Your task to perform on an android device: Add "dell xps" to the cart on target.com Image 0: 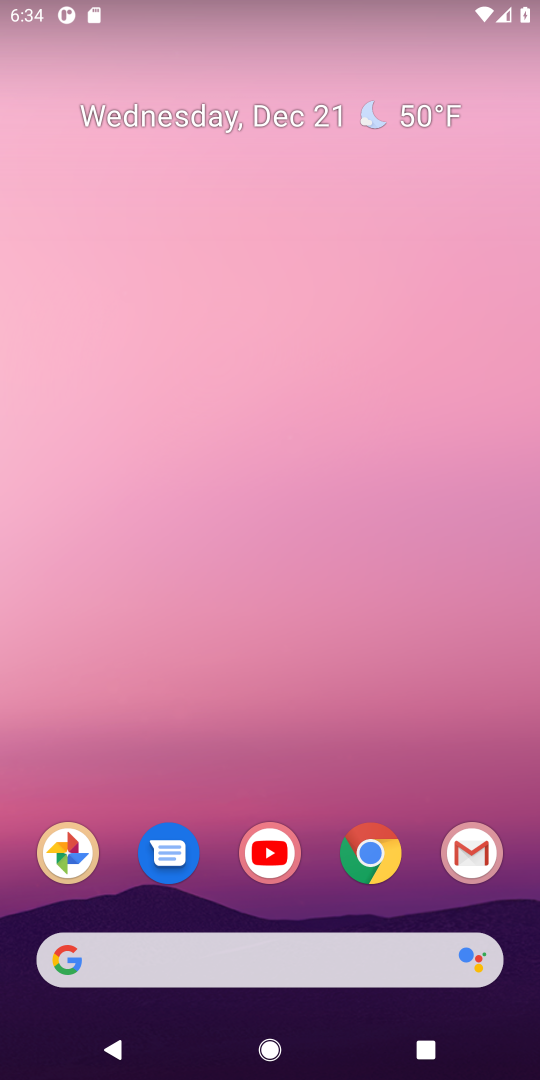
Step 0: click (381, 859)
Your task to perform on an android device: Add "dell xps" to the cart on target.com Image 1: 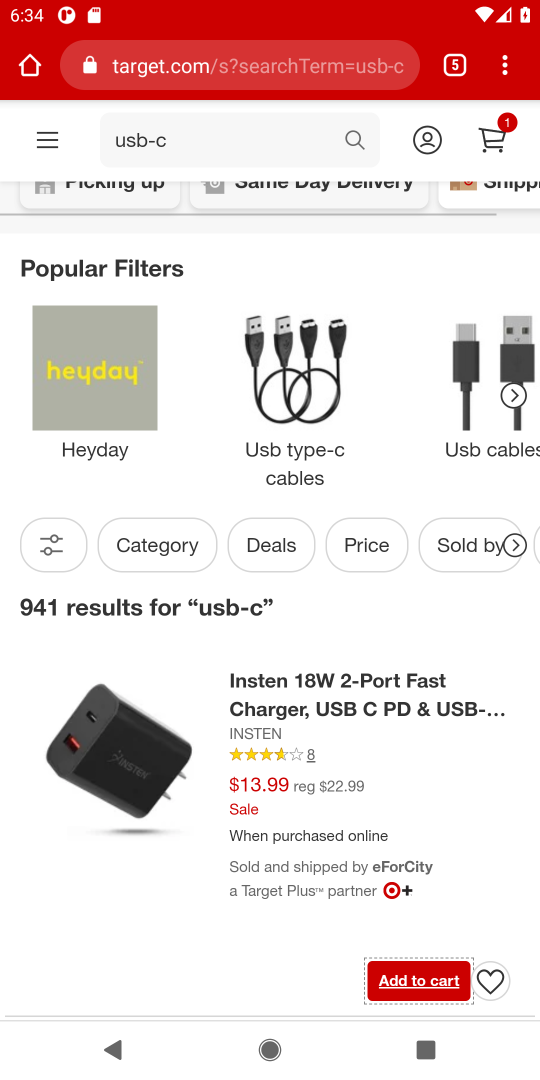
Step 1: click (164, 139)
Your task to perform on an android device: Add "dell xps" to the cart on target.com Image 2: 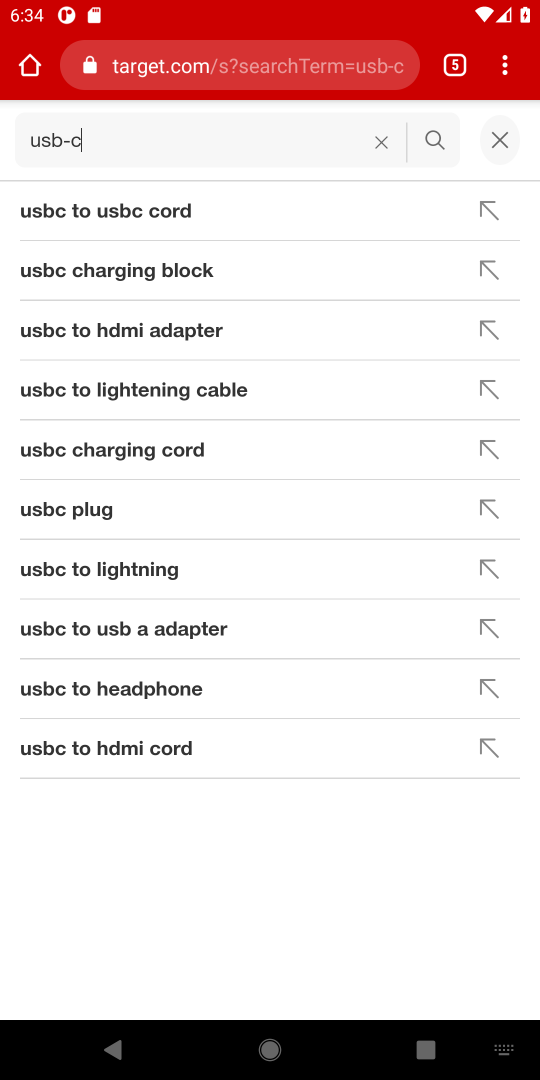
Step 2: click (386, 140)
Your task to perform on an android device: Add "dell xps" to the cart on target.com Image 3: 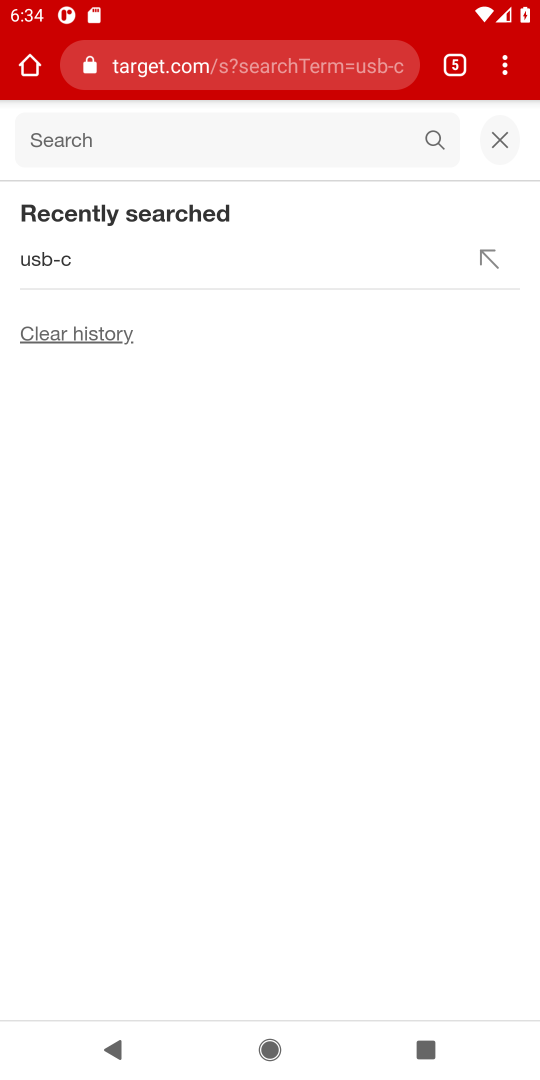
Step 3: type "dell xps"
Your task to perform on an android device: Add "dell xps" to the cart on target.com Image 4: 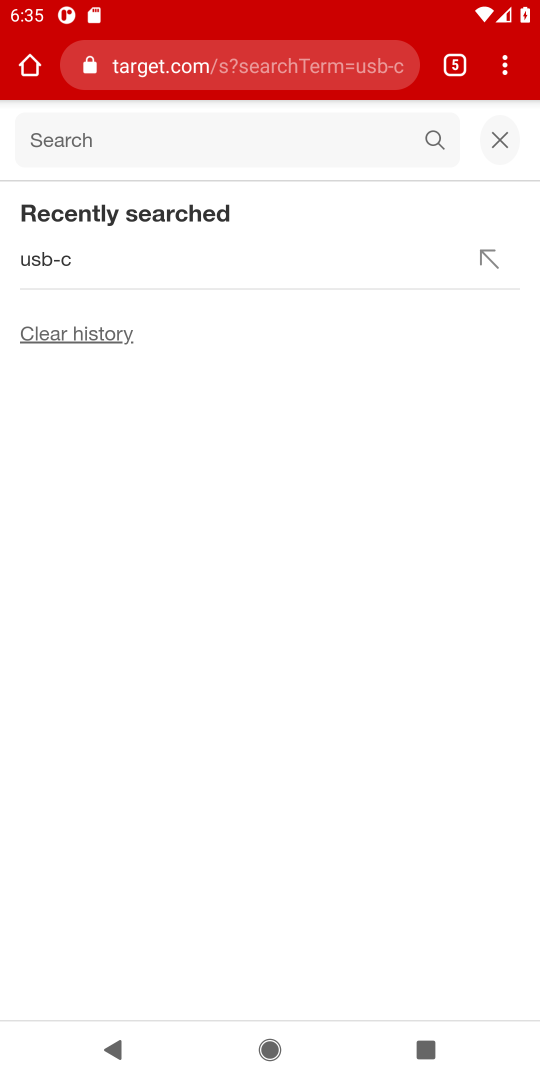
Step 4: click (332, 145)
Your task to perform on an android device: Add "dell xps" to the cart on target.com Image 5: 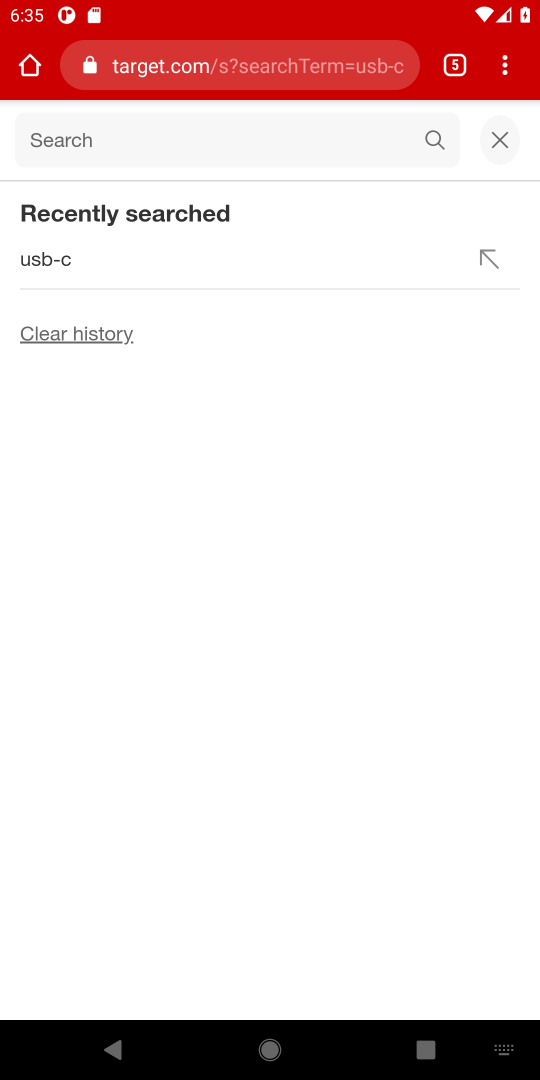
Step 5: type "dell xps"
Your task to perform on an android device: Add "dell xps" to the cart on target.com Image 6: 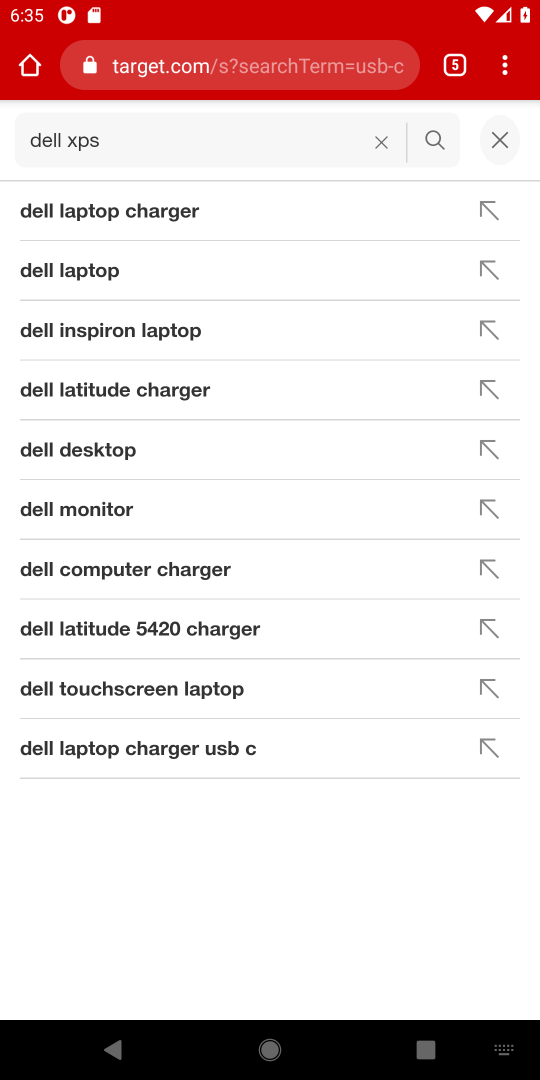
Step 6: click (434, 144)
Your task to perform on an android device: Add "dell xps" to the cart on target.com Image 7: 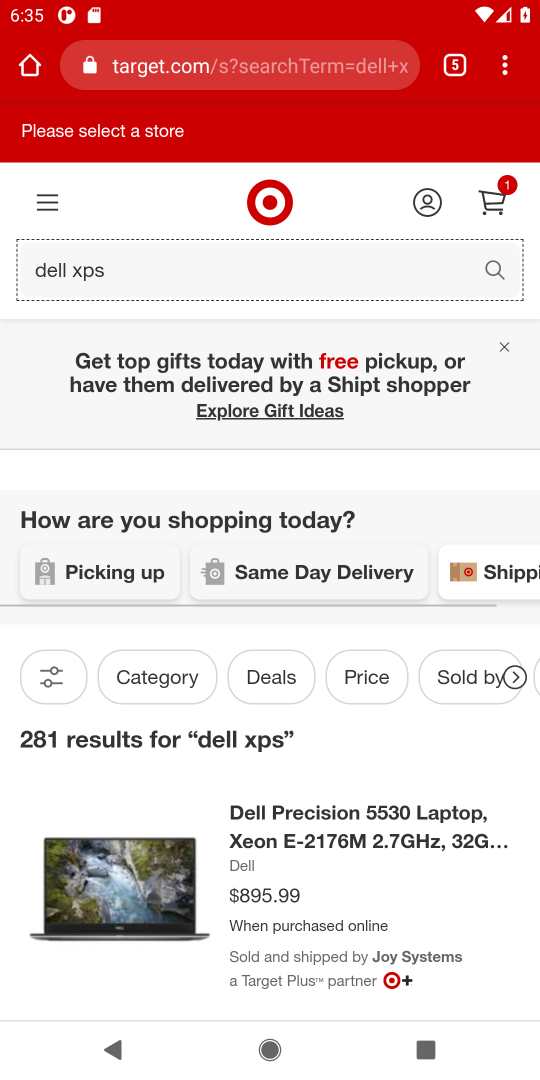
Step 7: task complete